Your task to perform on an android device: turn off smart reply in the gmail app Image 0: 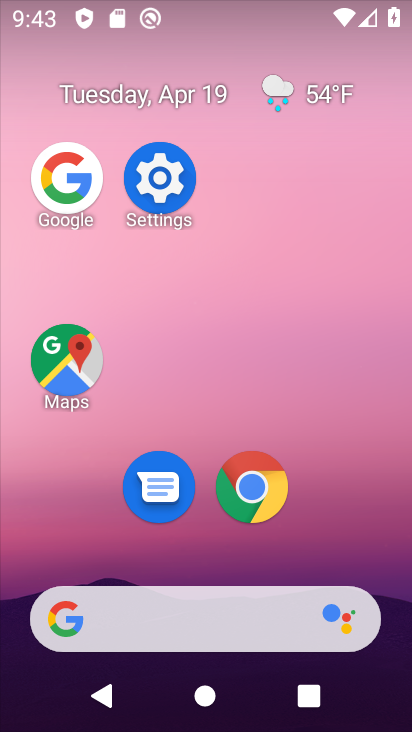
Step 0: drag from (256, 557) to (338, 69)
Your task to perform on an android device: turn off smart reply in the gmail app Image 1: 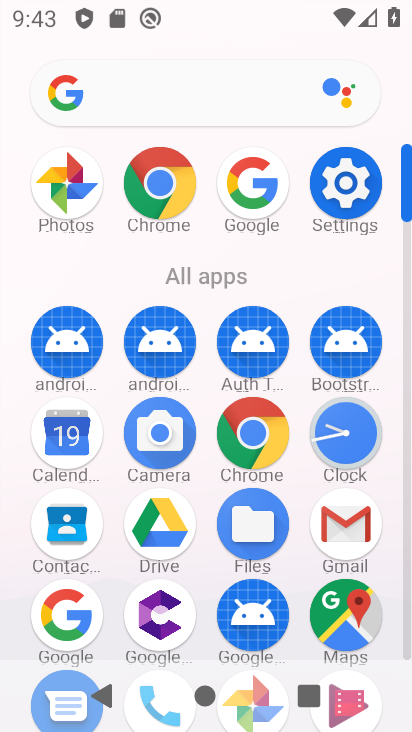
Step 1: drag from (354, 523) to (255, 238)
Your task to perform on an android device: turn off smart reply in the gmail app Image 2: 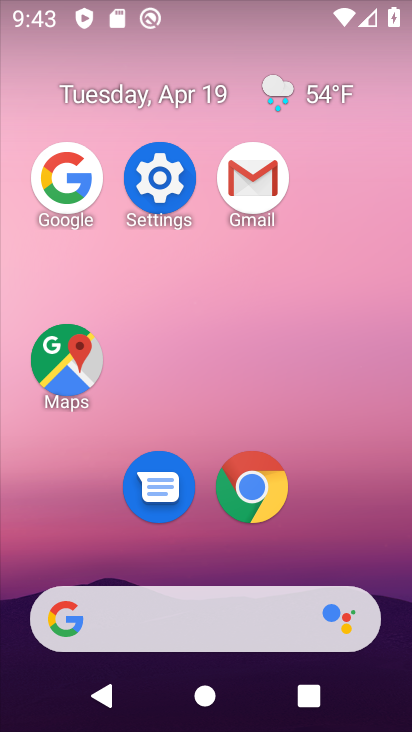
Step 2: click (249, 193)
Your task to perform on an android device: turn off smart reply in the gmail app Image 3: 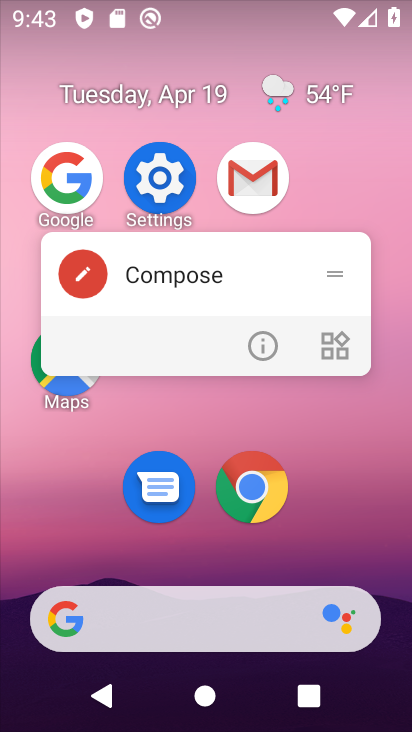
Step 3: click (256, 172)
Your task to perform on an android device: turn off smart reply in the gmail app Image 4: 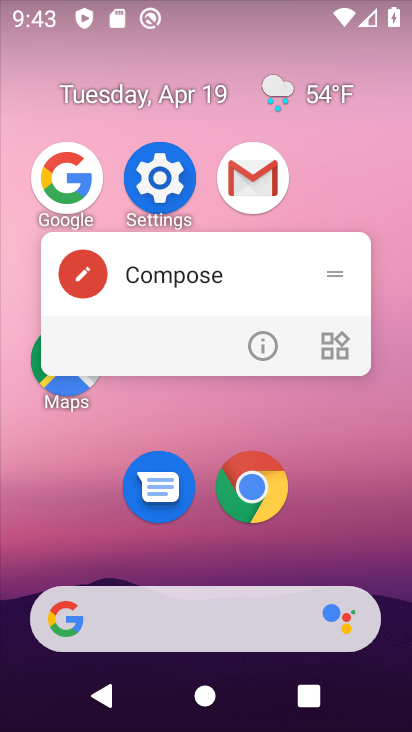
Step 4: click (256, 172)
Your task to perform on an android device: turn off smart reply in the gmail app Image 5: 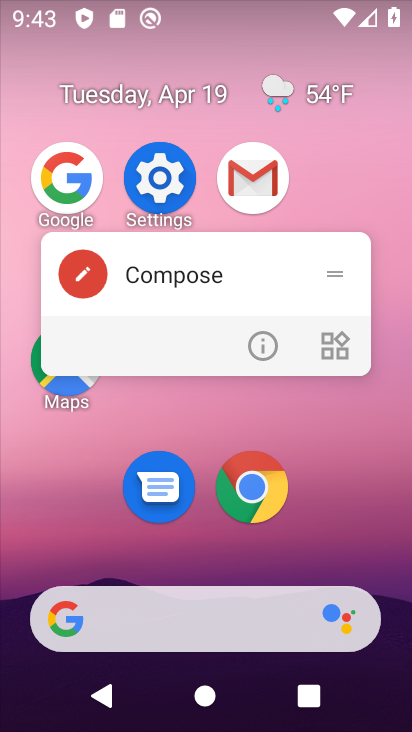
Step 5: click (256, 172)
Your task to perform on an android device: turn off smart reply in the gmail app Image 6: 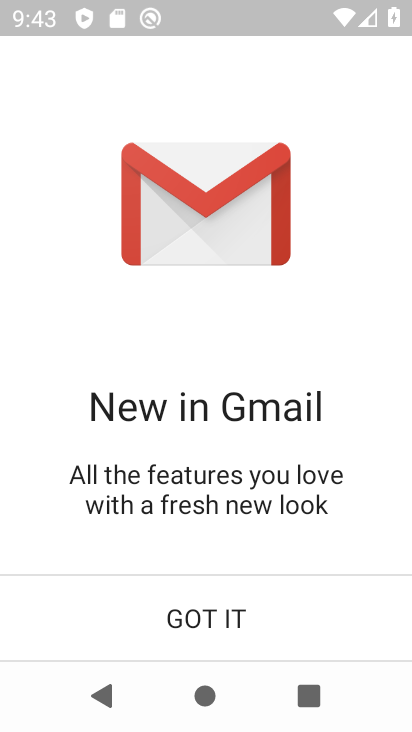
Step 6: click (256, 617)
Your task to perform on an android device: turn off smart reply in the gmail app Image 7: 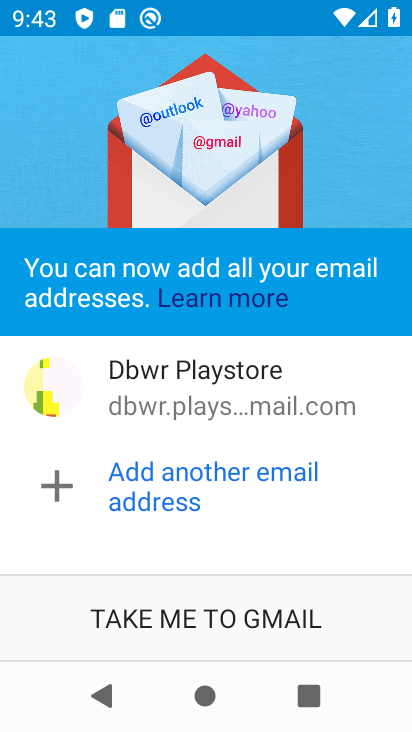
Step 7: click (256, 617)
Your task to perform on an android device: turn off smart reply in the gmail app Image 8: 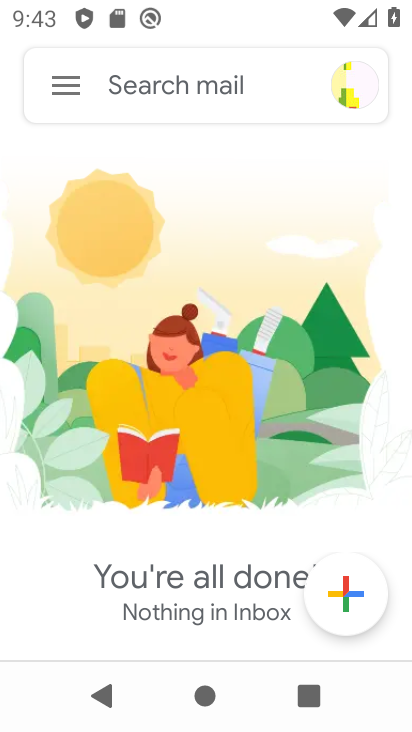
Step 8: click (77, 94)
Your task to perform on an android device: turn off smart reply in the gmail app Image 9: 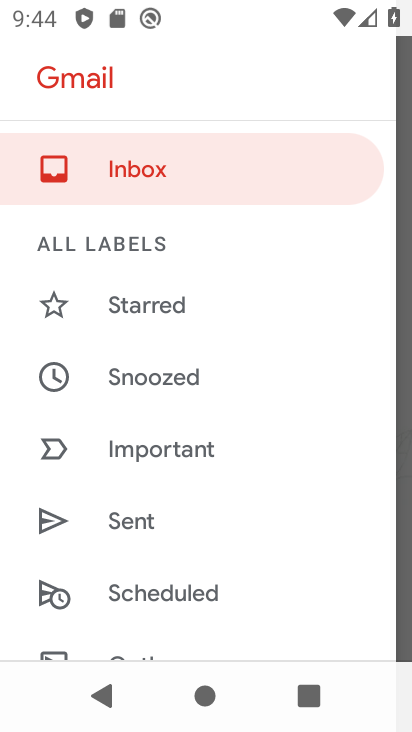
Step 9: drag from (205, 559) to (263, 124)
Your task to perform on an android device: turn off smart reply in the gmail app Image 10: 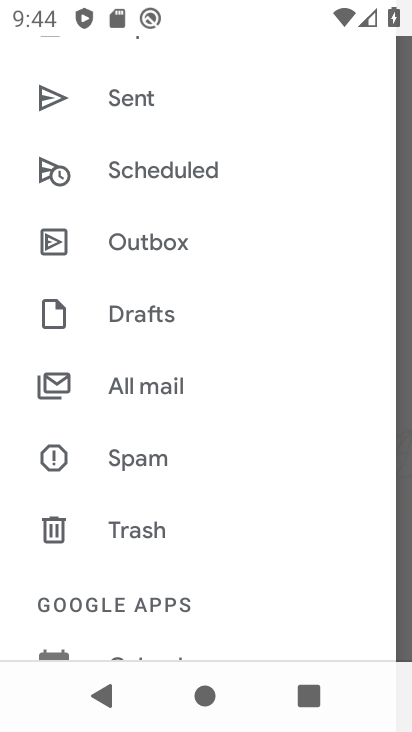
Step 10: drag from (186, 597) to (197, 149)
Your task to perform on an android device: turn off smart reply in the gmail app Image 11: 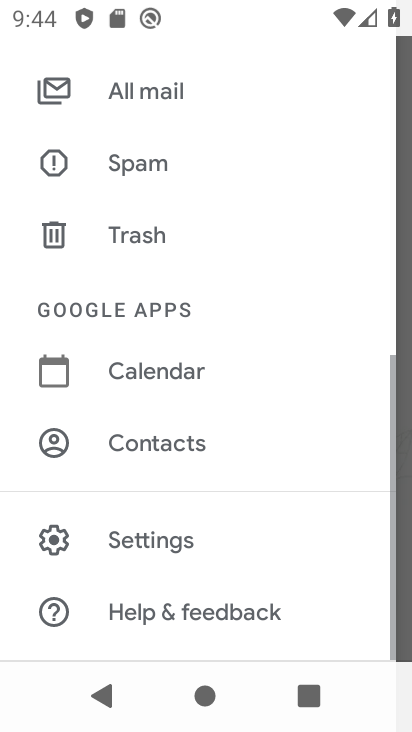
Step 11: click (179, 535)
Your task to perform on an android device: turn off smart reply in the gmail app Image 12: 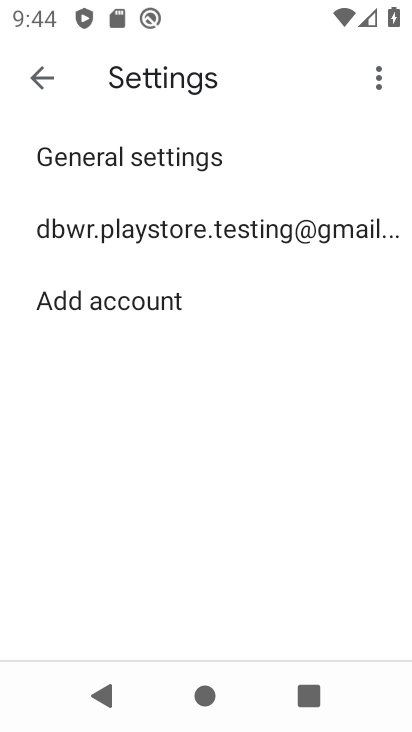
Step 12: click (278, 230)
Your task to perform on an android device: turn off smart reply in the gmail app Image 13: 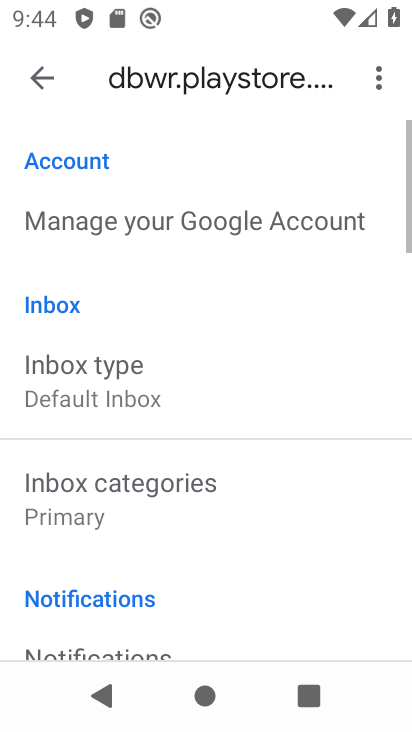
Step 13: drag from (195, 506) to (239, 116)
Your task to perform on an android device: turn off smart reply in the gmail app Image 14: 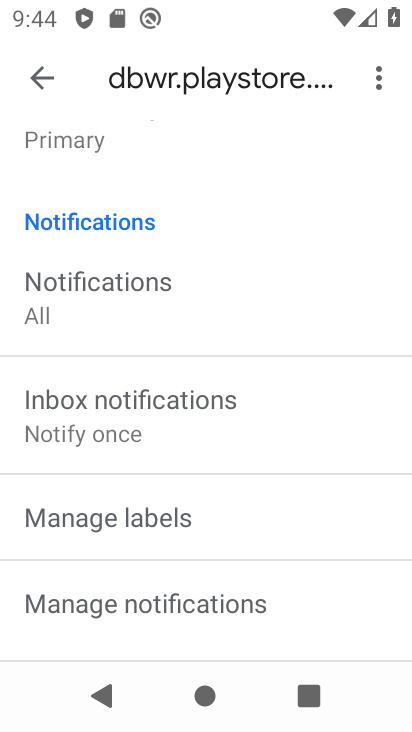
Step 14: drag from (275, 599) to (325, 48)
Your task to perform on an android device: turn off smart reply in the gmail app Image 15: 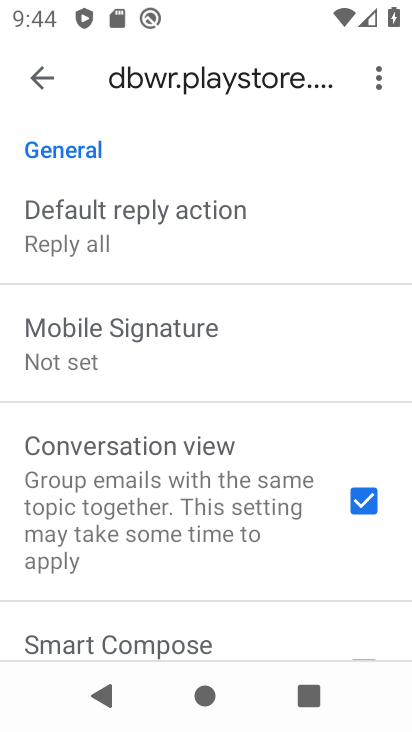
Step 15: drag from (207, 620) to (315, 158)
Your task to perform on an android device: turn off smart reply in the gmail app Image 16: 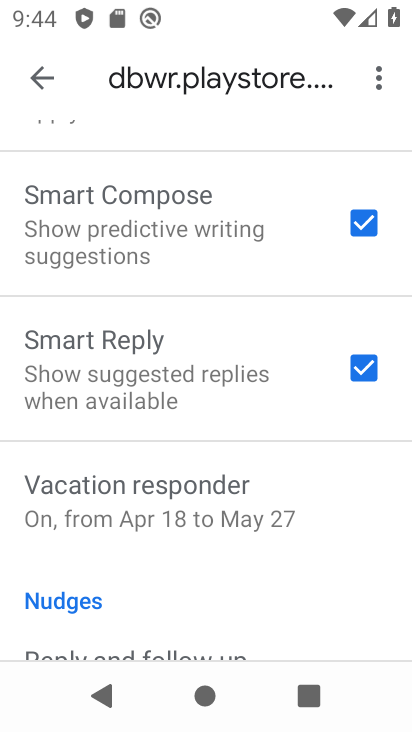
Step 16: click (364, 368)
Your task to perform on an android device: turn off smart reply in the gmail app Image 17: 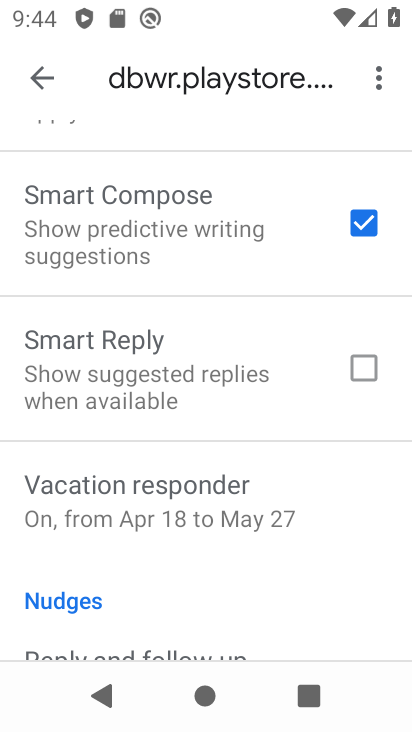
Step 17: task complete